Your task to perform on an android device: open chrome privacy settings Image 0: 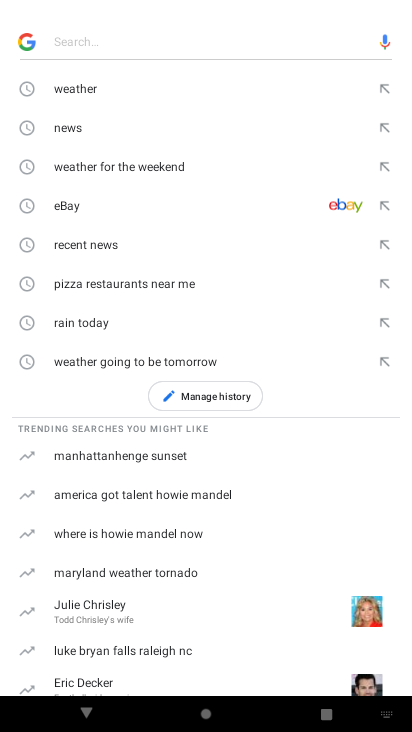
Step 0: press home button
Your task to perform on an android device: open chrome privacy settings Image 1: 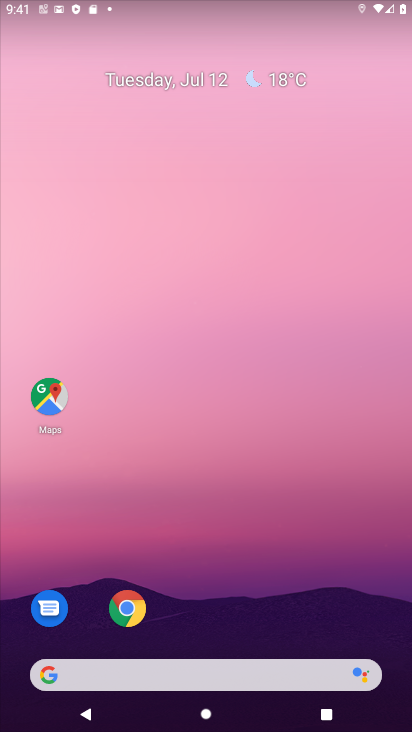
Step 1: click (126, 603)
Your task to perform on an android device: open chrome privacy settings Image 2: 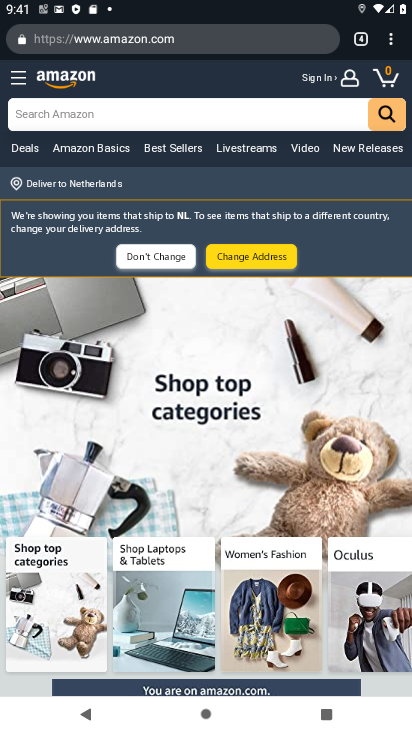
Step 2: click (399, 38)
Your task to perform on an android device: open chrome privacy settings Image 3: 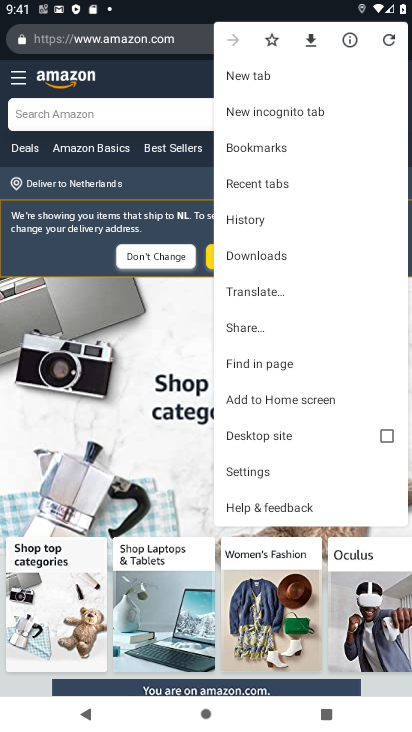
Step 3: click (260, 466)
Your task to perform on an android device: open chrome privacy settings Image 4: 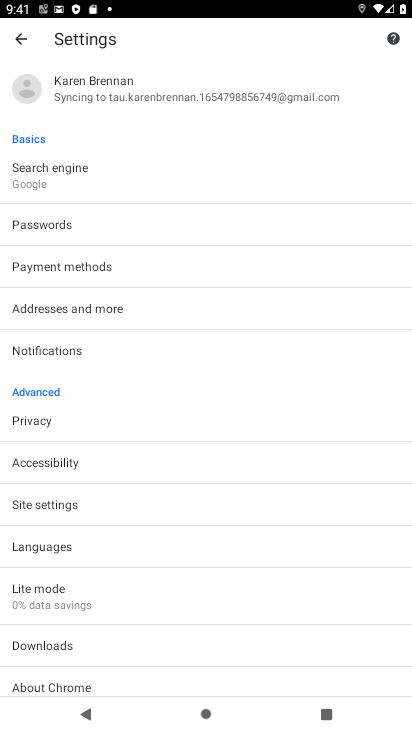
Step 4: click (33, 416)
Your task to perform on an android device: open chrome privacy settings Image 5: 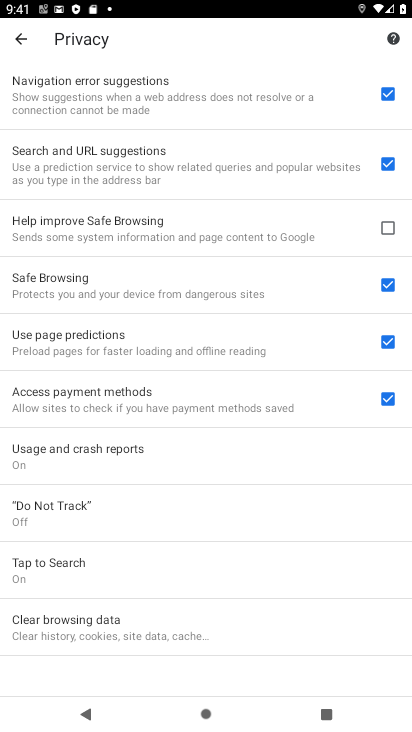
Step 5: task complete